Your task to perform on an android device: Show the shopping cart on bestbuy. Image 0: 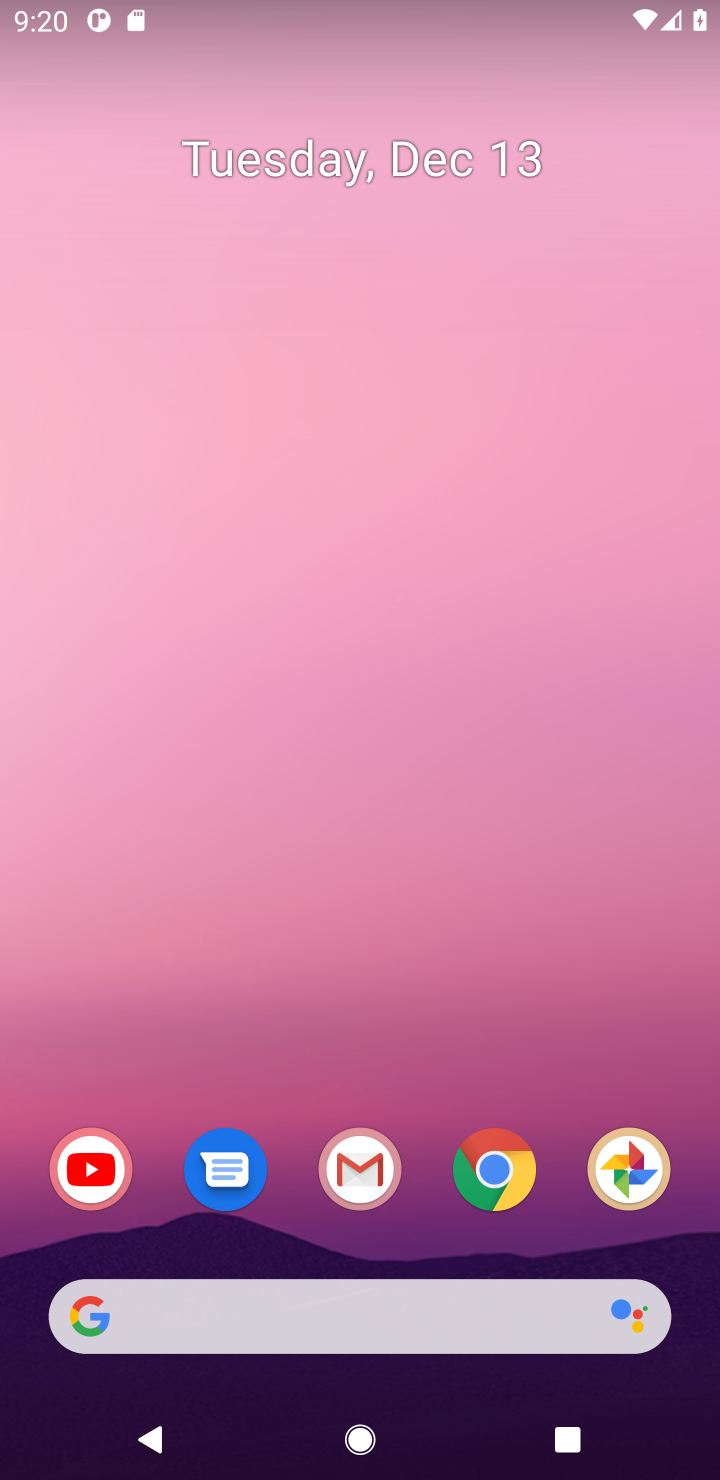
Step 0: click (483, 1156)
Your task to perform on an android device: Show the shopping cart on bestbuy. Image 1: 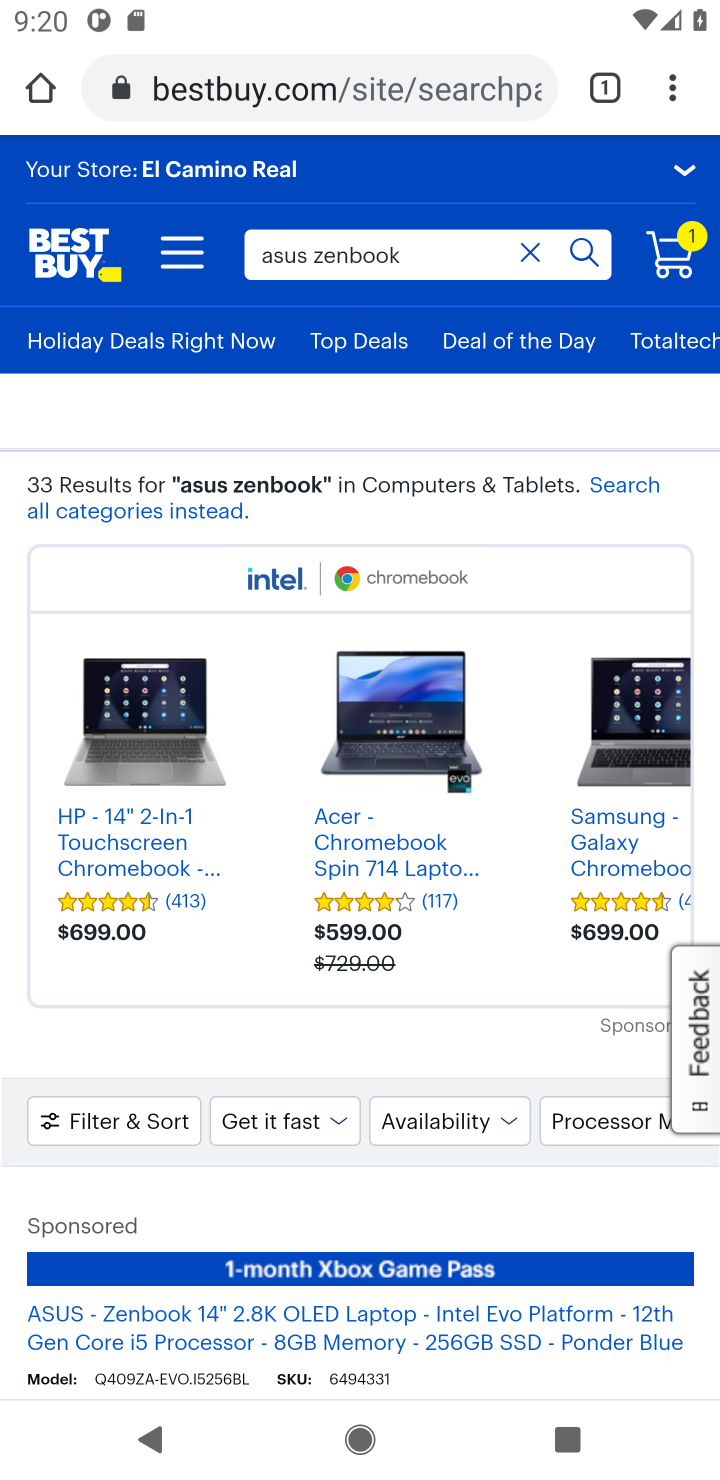
Step 1: click (691, 258)
Your task to perform on an android device: Show the shopping cart on bestbuy. Image 2: 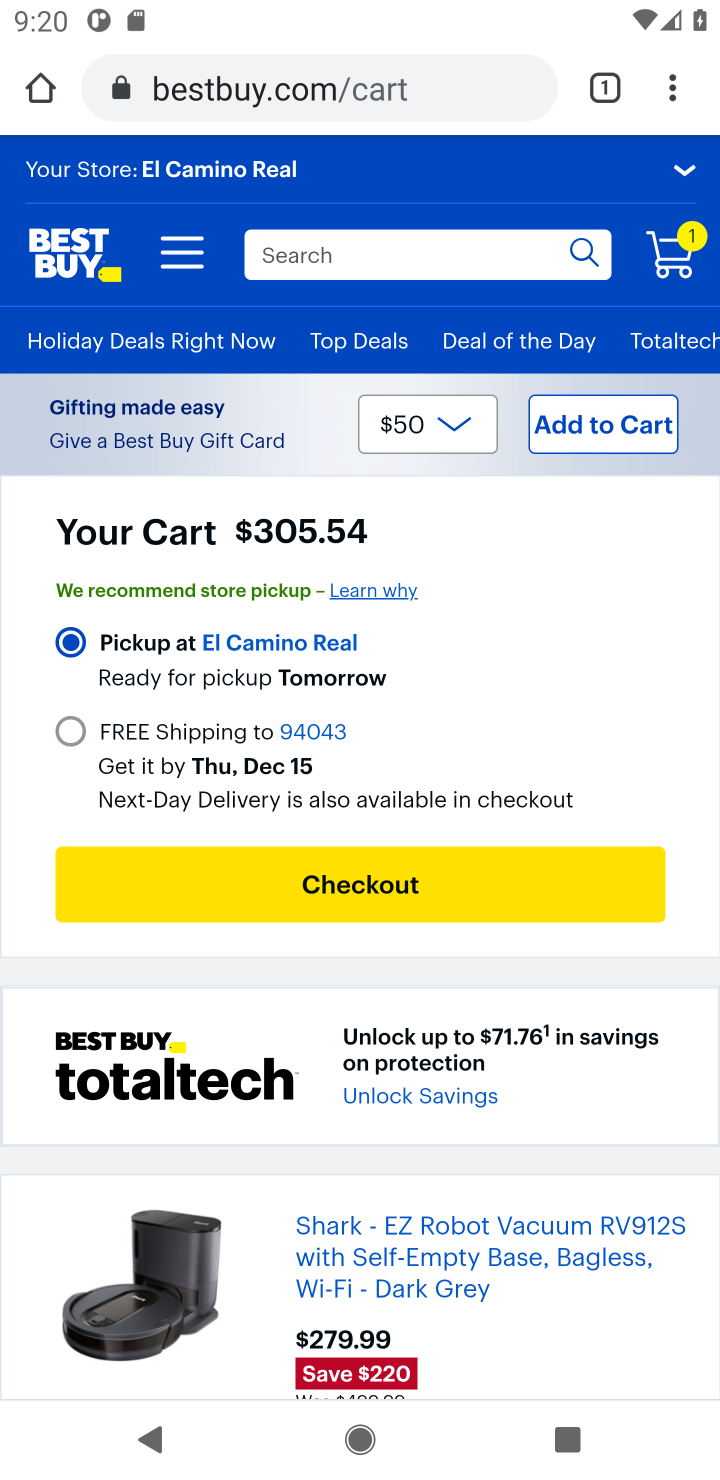
Step 2: task complete